Your task to perform on an android device: What's on my calendar tomorrow? Image 0: 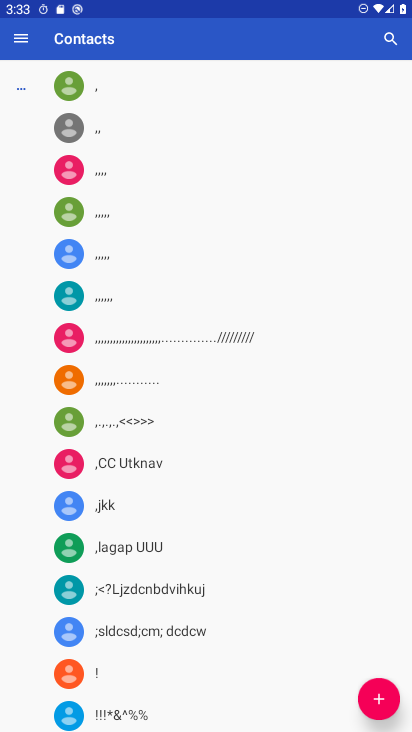
Step 0: press back button
Your task to perform on an android device: What's on my calendar tomorrow? Image 1: 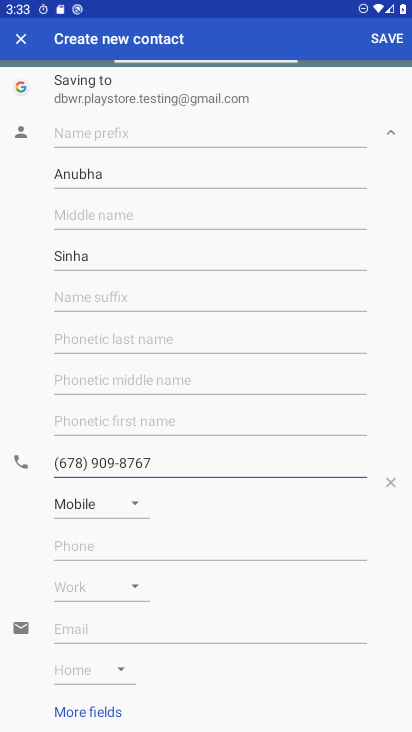
Step 1: press home button
Your task to perform on an android device: What's on my calendar tomorrow? Image 2: 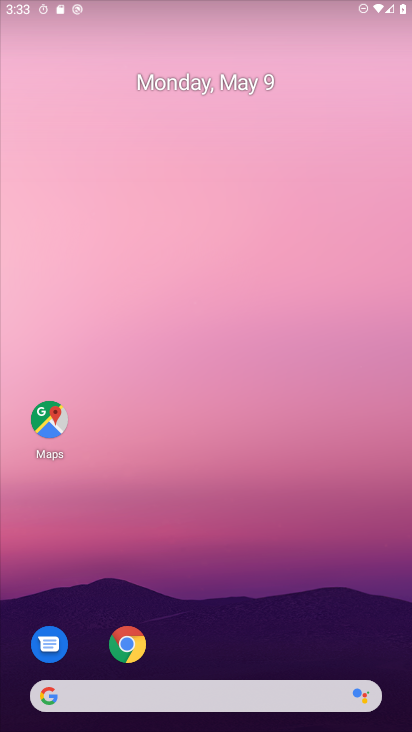
Step 2: drag from (234, 612) to (239, 113)
Your task to perform on an android device: What's on my calendar tomorrow? Image 3: 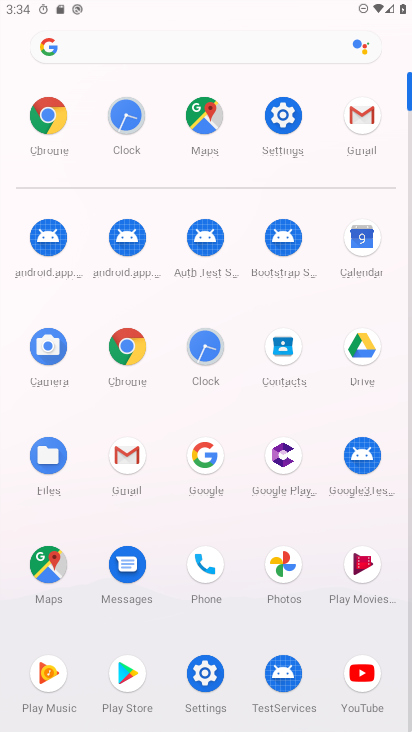
Step 3: click (208, 705)
Your task to perform on an android device: What's on my calendar tomorrow? Image 4: 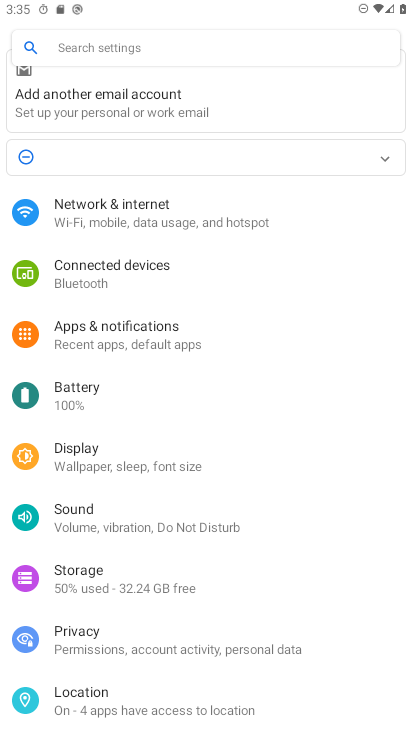
Step 4: drag from (225, 536) to (297, 236)
Your task to perform on an android device: What's on my calendar tomorrow? Image 5: 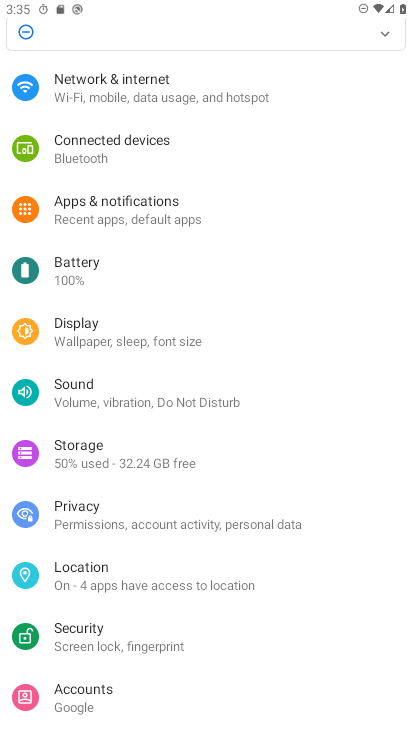
Step 5: drag from (230, 273) to (139, 565)
Your task to perform on an android device: What's on my calendar tomorrow? Image 6: 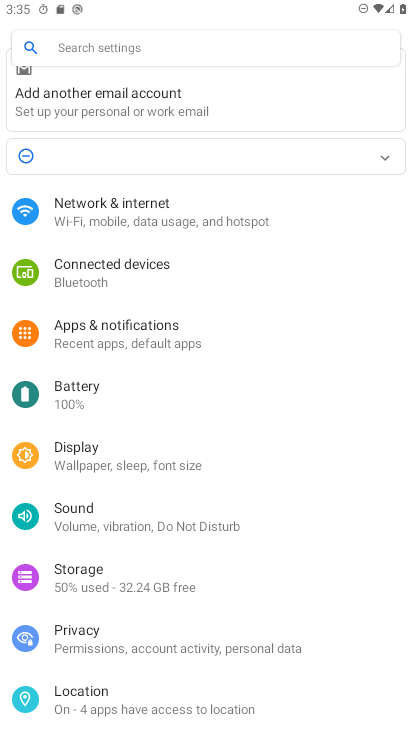
Step 6: drag from (182, 651) to (256, 375)
Your task to perform on an android device: What's on my calendar tomorrow? Image 7: 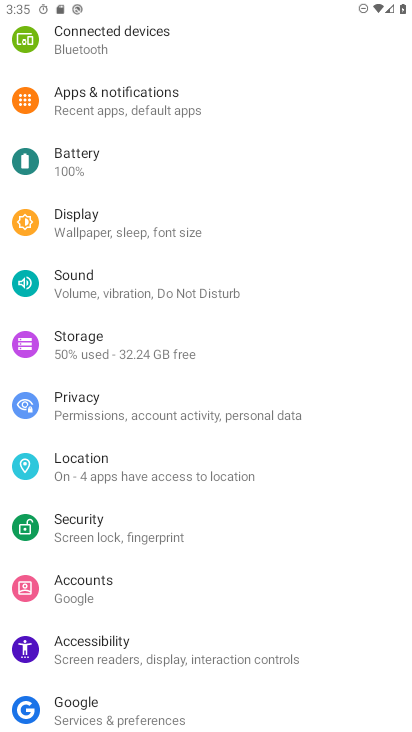
Step 7: drag from (293, 287) to (253, 640)
Your task to perform on an android device: What's on my calendar tomorrow? Image 8: 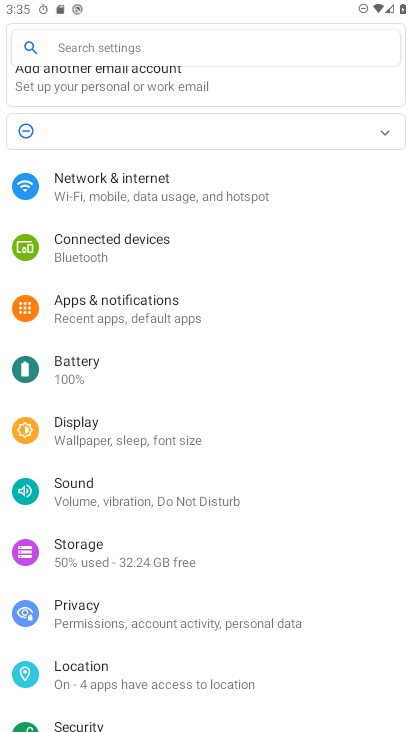
Step 8: drag from (234, 637) to (268, 276)
Your task to perform on an android device: What's on my calendar tomorrow? Image 9: 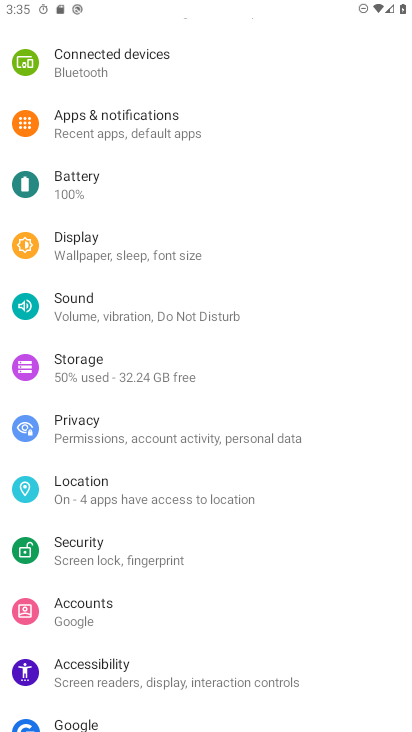
Step 9: drag from (214, 511) to (215, 318)
Your task to perform on an android device: What's on my calendar tomorrow? Image 10: 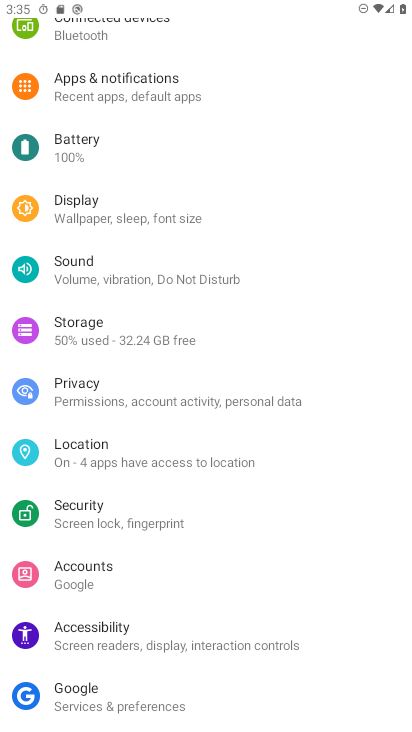
Step 10: drag from (261, 157) to (211, 729)
Your task to perform on an android device: What's on my calendar tomorrow? Image 11: 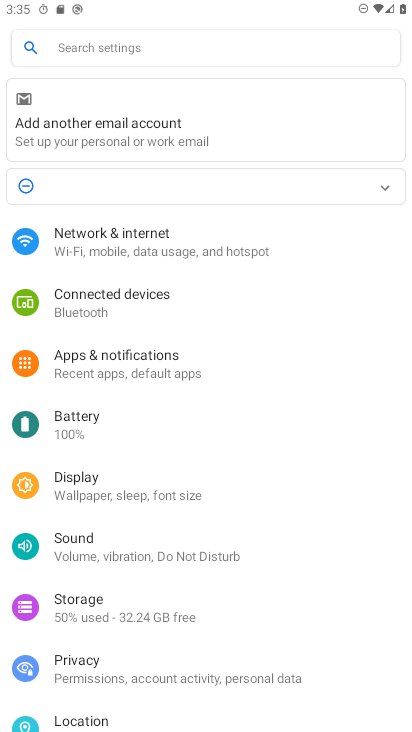
Step 11: drag from (275, 622) to (326, 267)
Your task to perform on an android device: What's on my calendar tomorrow? Image 12: 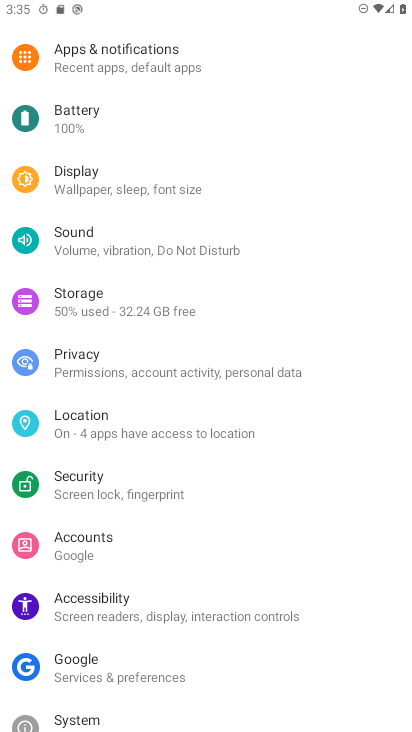
Step 12: drag from (298, 216) to (219, 607)
Your task to perform on an android device: What's on my calendar tomorrow? Image 13: 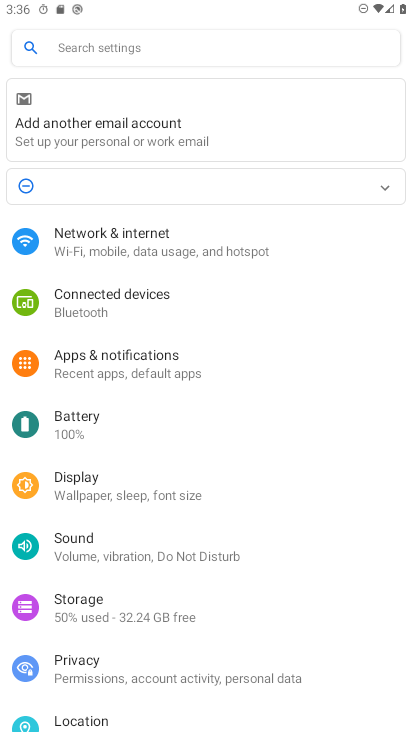
Step 13: press home button
Your task to perform on an android device: What's on my calendar tomorrow? Image 14: 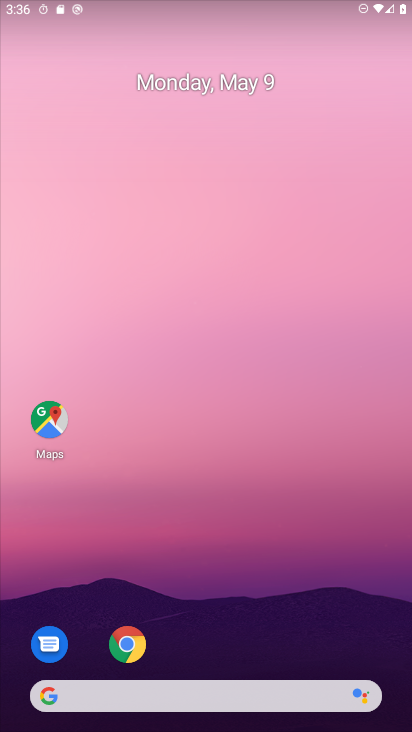
Step 14: drag from (231, 572) to (195, 120)
Your task to perform on an android device: What's on my calendar tomorrow? Image 15: 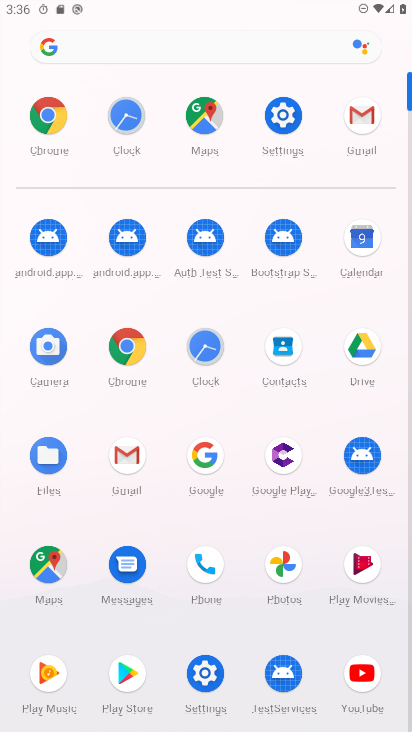
Step 15: drag from (283, 594) to (326, 293)
Your task to perform on an android device: What's on my calendar tomorrow? Image 16: 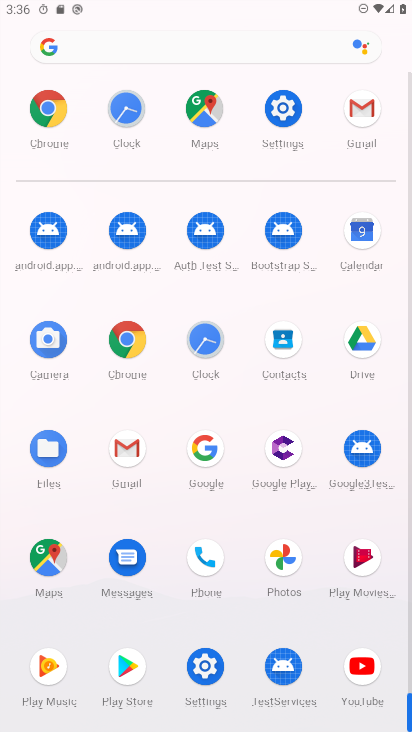
Step 16: drag from (245, 242) to (258, 678)
Your task to perform on an android device: What's on my calendar tomorrow? Image 17: 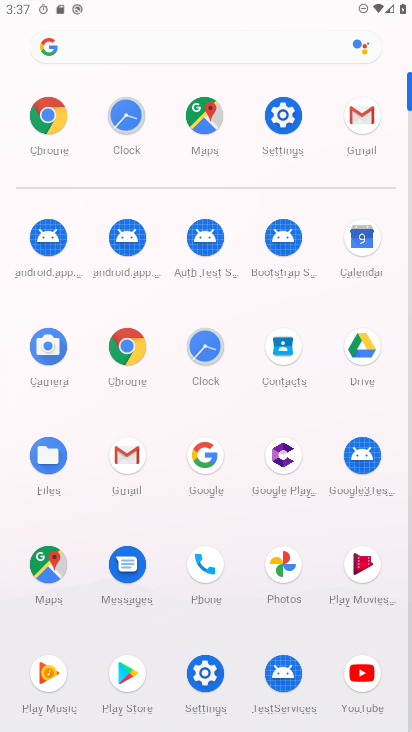
Step 17: drag from (263, 610) to (311, 240)
Your task to perform on an android device: What's on my calendar tomorrow? Image 18: 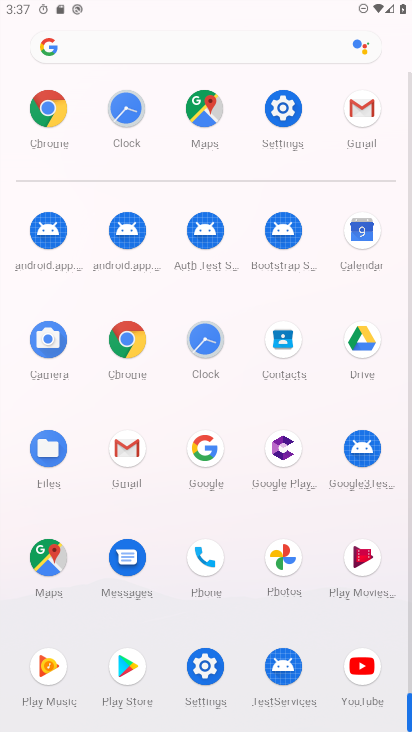
Step 18: drag from (269, 369) to (272, 617)
Your task to perform on an android device: What's on my calendar tomorrow? Image 19: 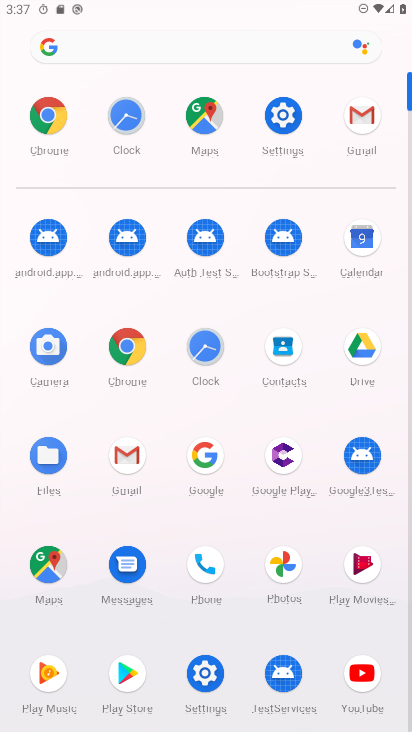
Step 19: drag from (304, 546) to (315, 136)
Your task to perform on an android device: What's on my calendar tomorrow? Image 20: 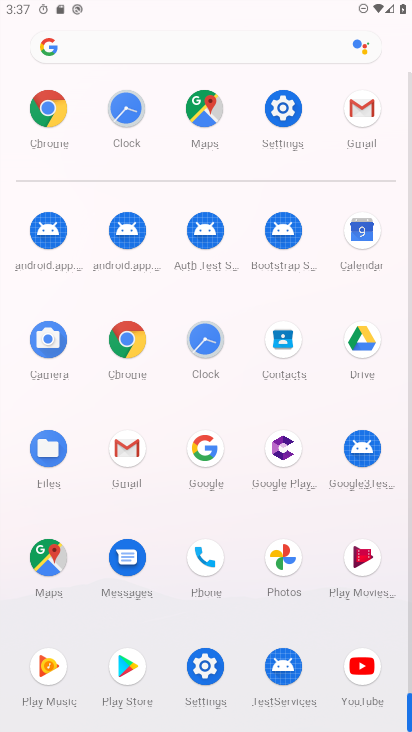
Step 20: drag from (286, 375) to (277, 451)
Your task to perform on an android device: What's on my calendar tomorrow? Image 21: 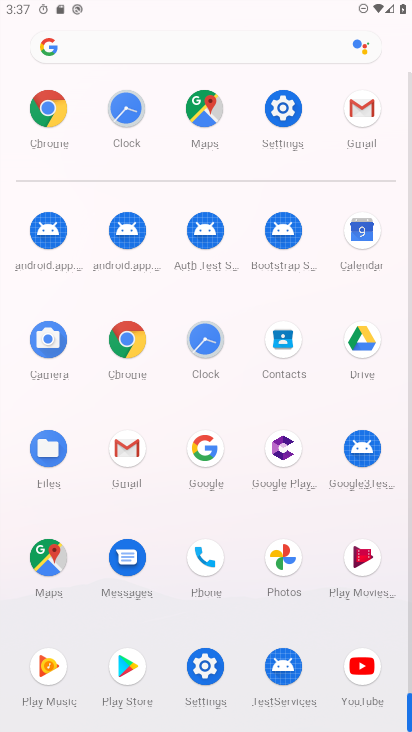
Step 21: drag from (264, 358) to (240, 725)
Your task to perform on an android device: What's on my calendar tomorrow? Image 22: 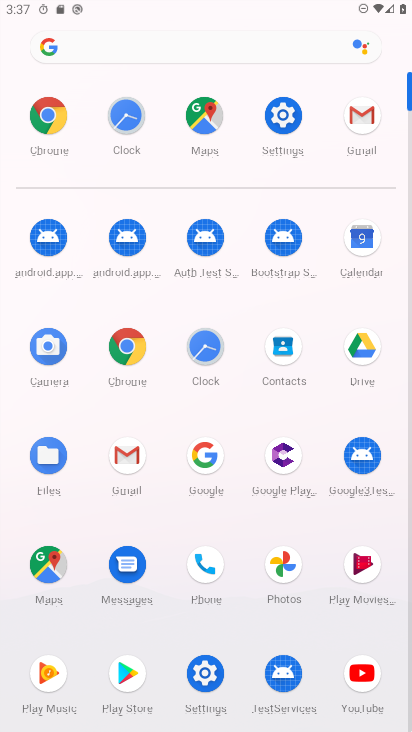
Step 22: click (369, 265)
Your task to perform on an android device: What's on my calendar tomorrow? Image 23: 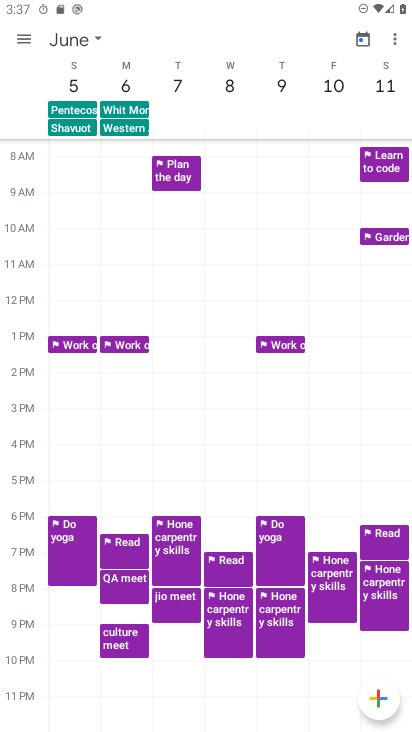
Step 23: click (56, 40)
Your task to perform on an android device: What's on my calendar tomorrow? Image 24: 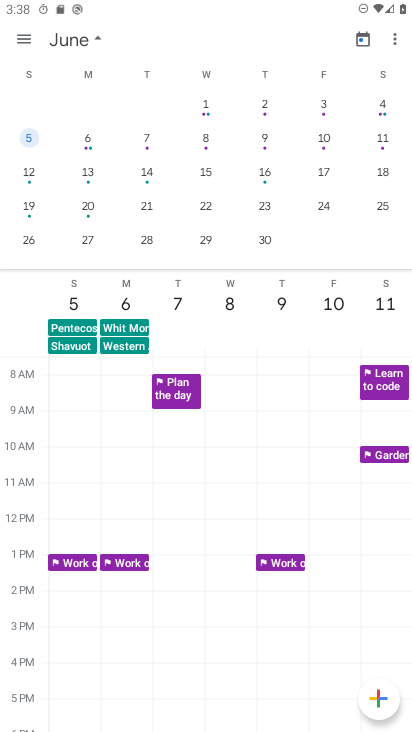
Step 24: drag from (279, 171) to (67, 232)
Your task to perform on an android device: What's on my calendar tomorrow? Image 25: 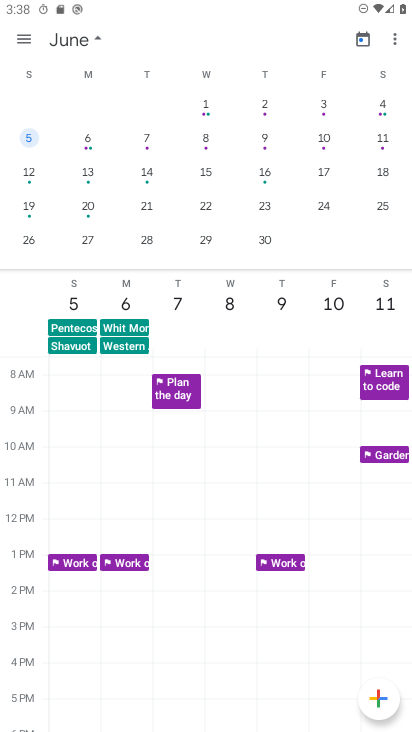
Step 25: drag from (354, 175) to (19, 194)
Your task to perform on an android device: What's on my calendar tomorrow? Image 26: 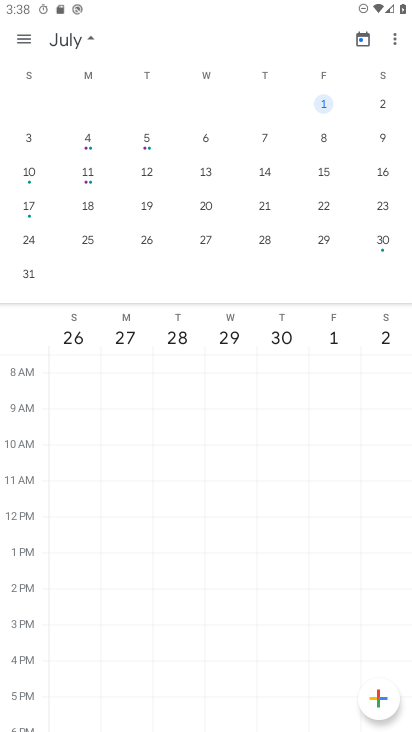
Step 26: click (71, 43)
Your task to perform on an android device: What's on my calendar tomorrow? Image 27: 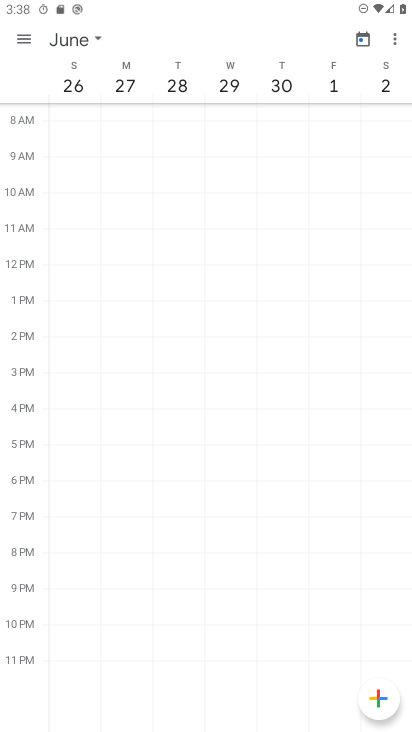
Step 27: click (78, 40)
Your task to perform on an android device: What's on my calendar tomorrow? Image 28: 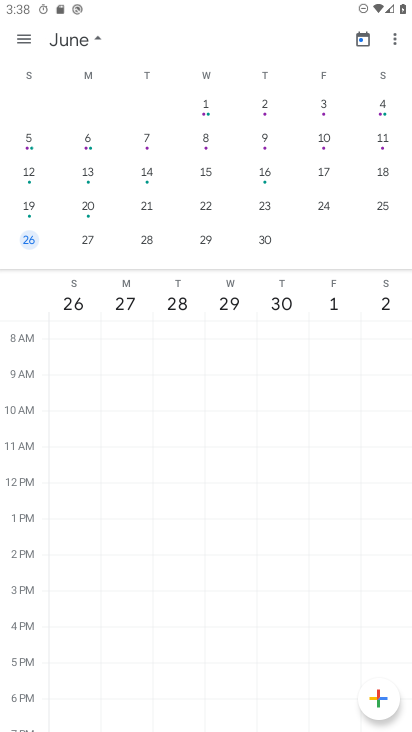
Step 28: drag from (79, 202) to (313, 249)
Your task to perform on an android device: What's on my calendar tomorrow? Image 29: 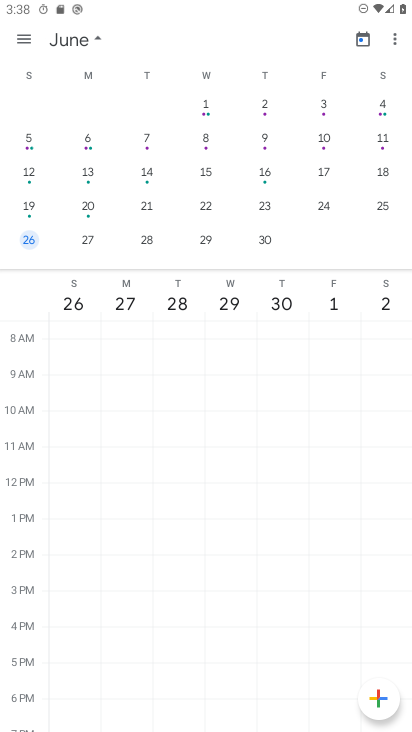
Step 29: drag from (61, 177) to (342, 191)
Your task to perform on an android device: What's on my calendar tomorrow? Image 30: 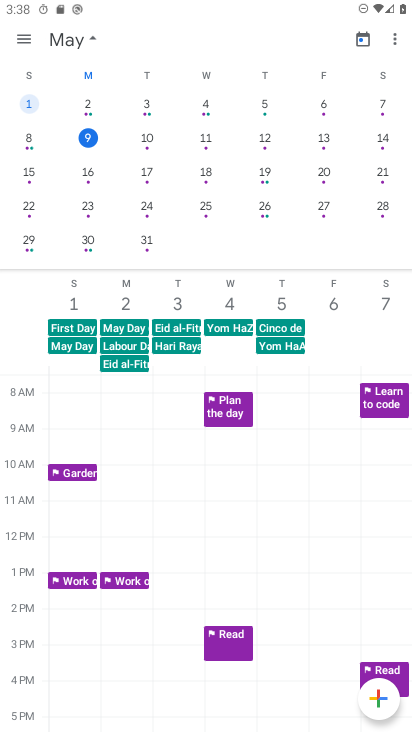
Step 30: click (16, 40)
Your task to perform on an android device: What's on my calendar tomorrow? Image 31: 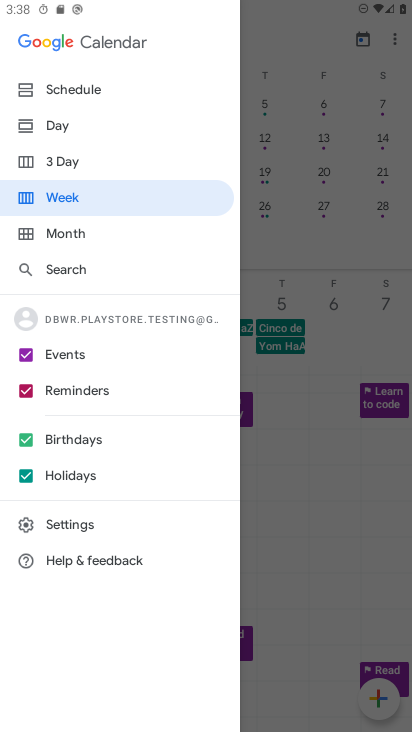
Step 31: click (91, 100)
Your task to perform on an android device: What's on my calendar tomorrow? Image 32: 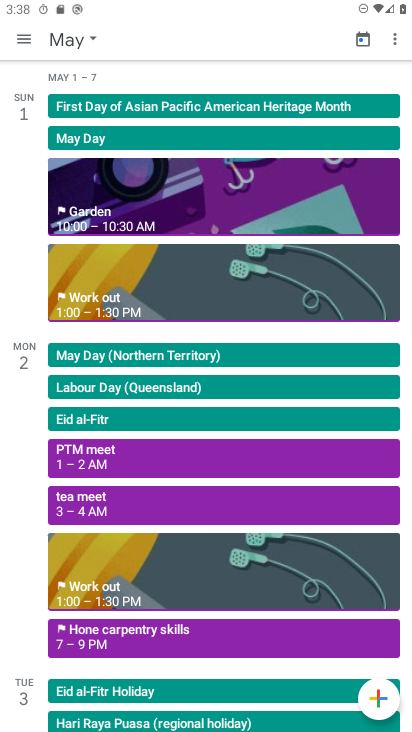
Step 32: click (30, 47)
Your task to perform on an android device: What's on my calendar tomorrow? Image 33: 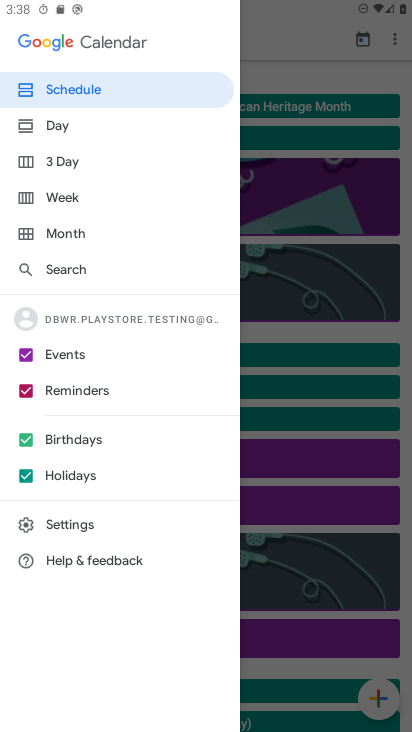
Step 33: click (67, 98)
Your task to perform on an android device: What's on my calendar tomorrow? Image 34: 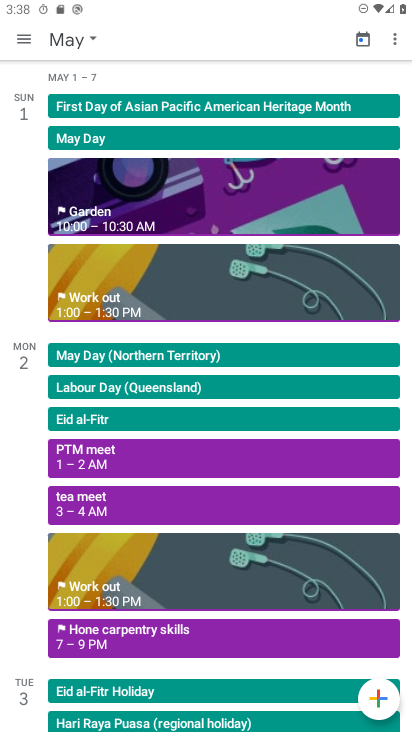
Step 34: click (66, 48)
Your task to perform on an android device: What's on my calendar tomorrow? Image 35: 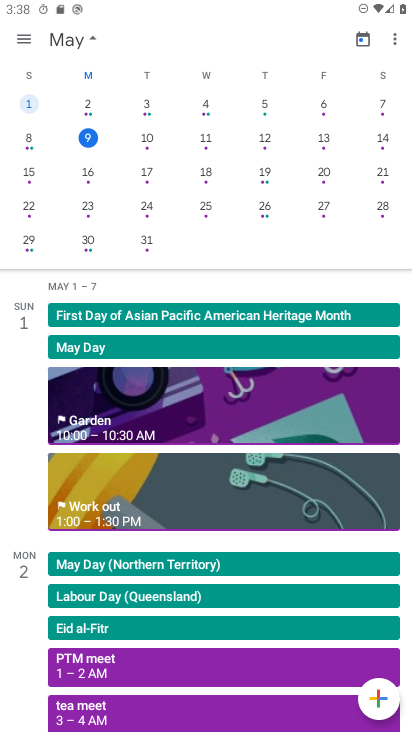
Step 35: click (90, 138)
Your task to perform on an android device: What's on my calendar tomorrow? Image 36: 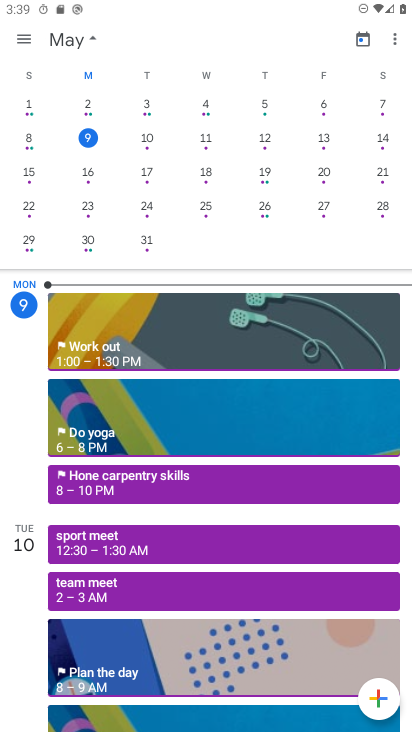
Step 36: task complete